Your task to perform on an android device: Open Google Chrome and open the bookmarks view Image 0: 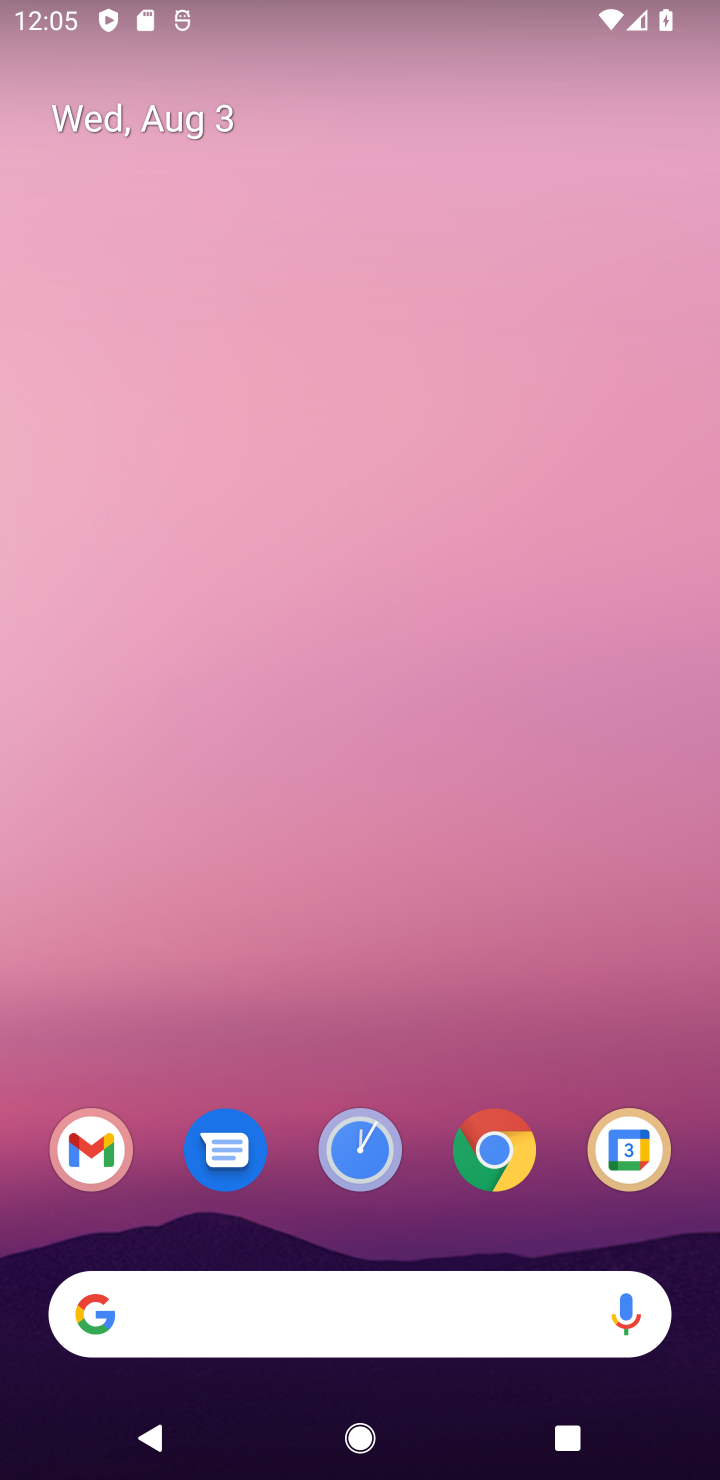
Step 0: press home button
Your task to perform on an android device: Open Google Chrome and open the bookmarks view Image 1: 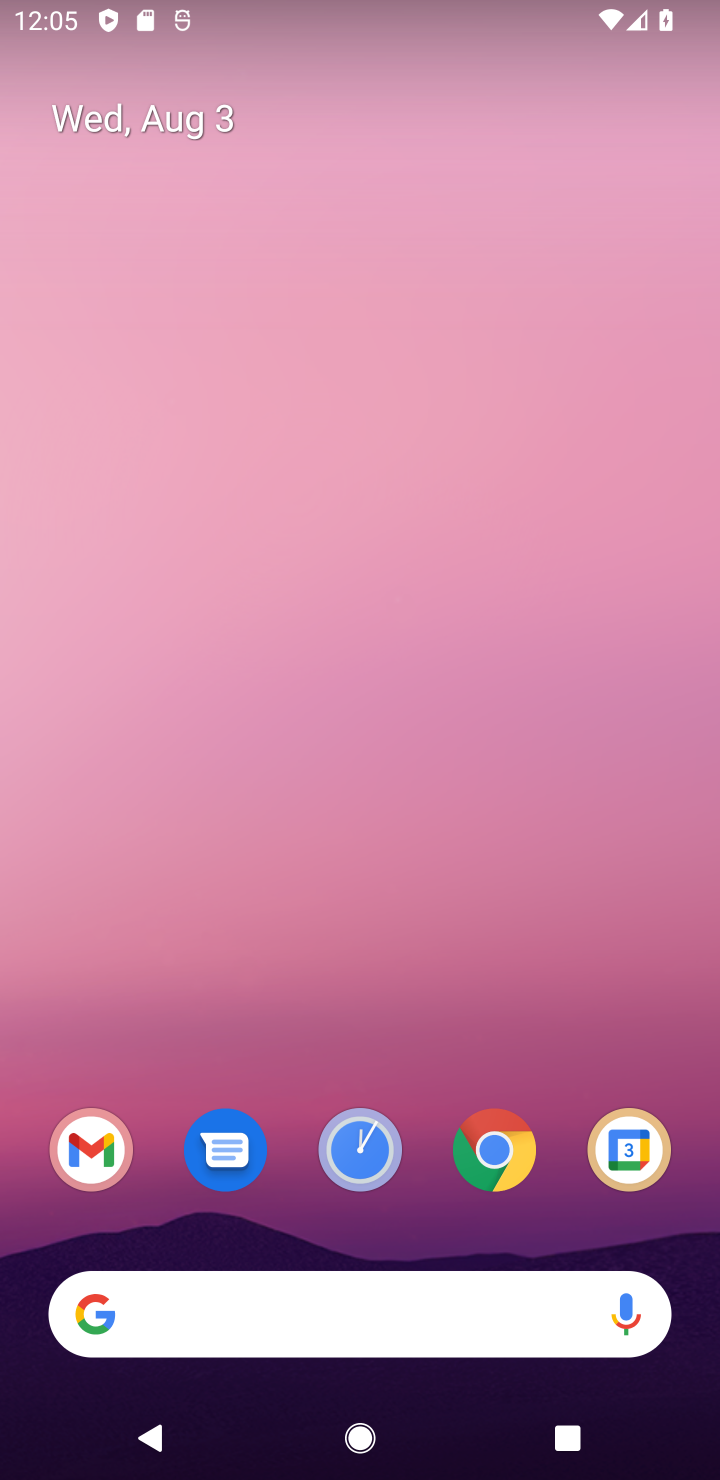
Step 1: drag from (487, 1013) to (523, 226)
Your task to perform on an android device: Open Google Chrome and open the bookmarks view Image 2: 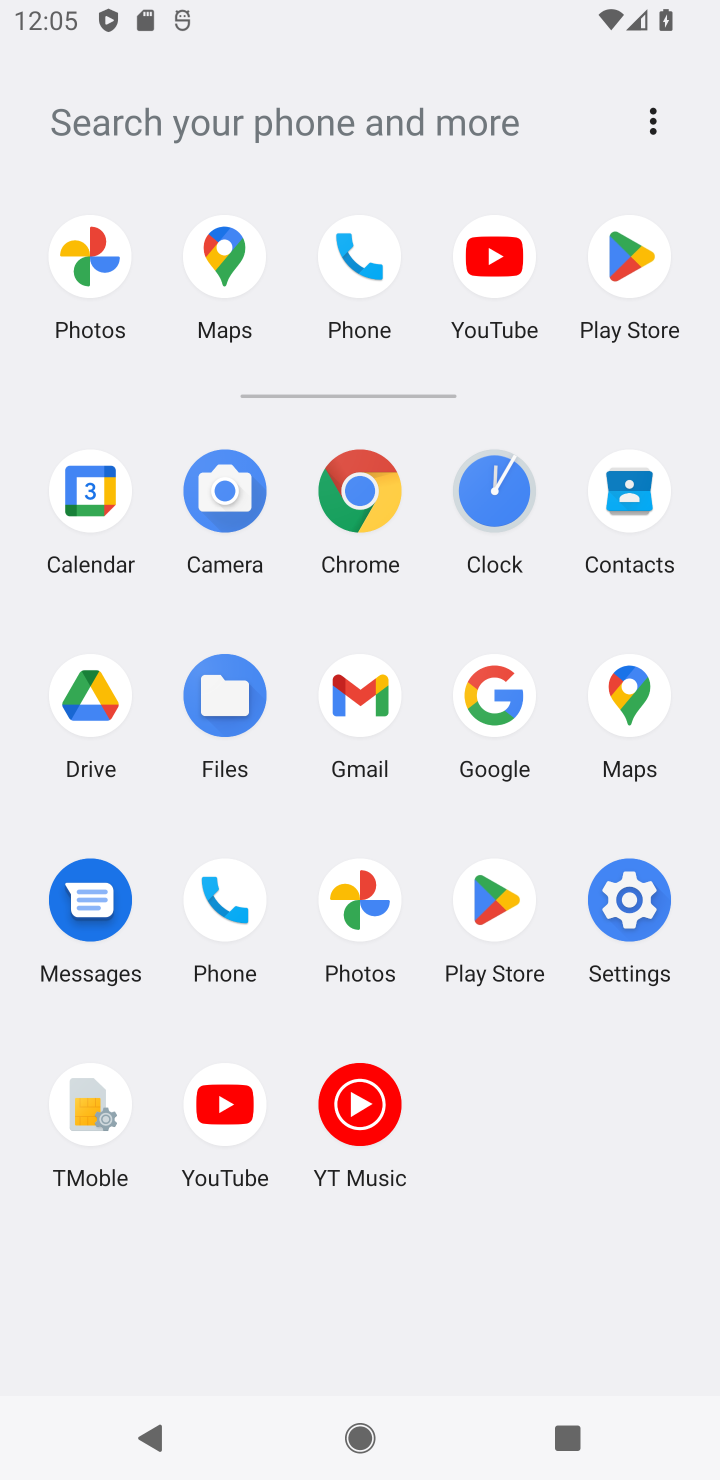
Step 2: click (351, 505)
Your task to perform on an android device: Open Google Chrome and open the bookmarks view Image 3: 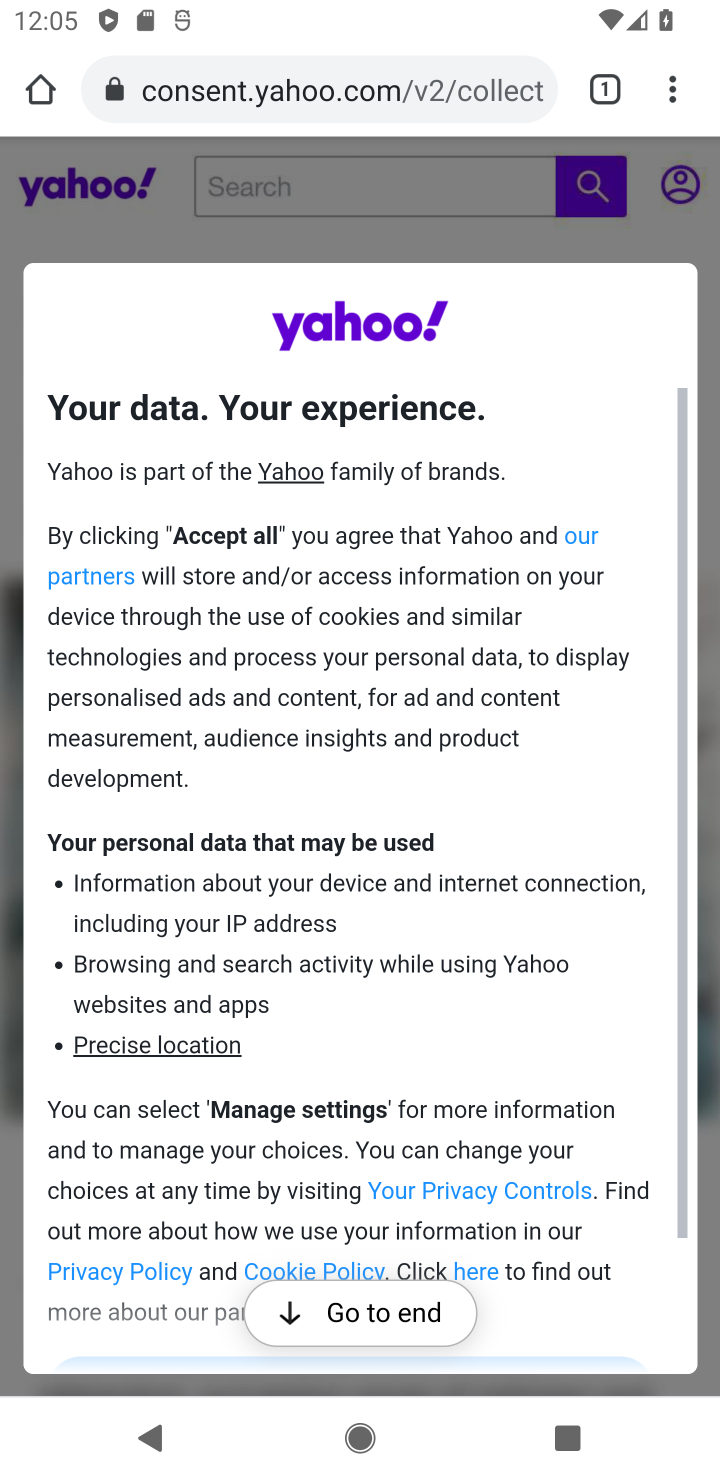
Step 3: click (671, 90)
Your task to perform on an android device: Open Google Chrome and open the bookmarks view Image 4: 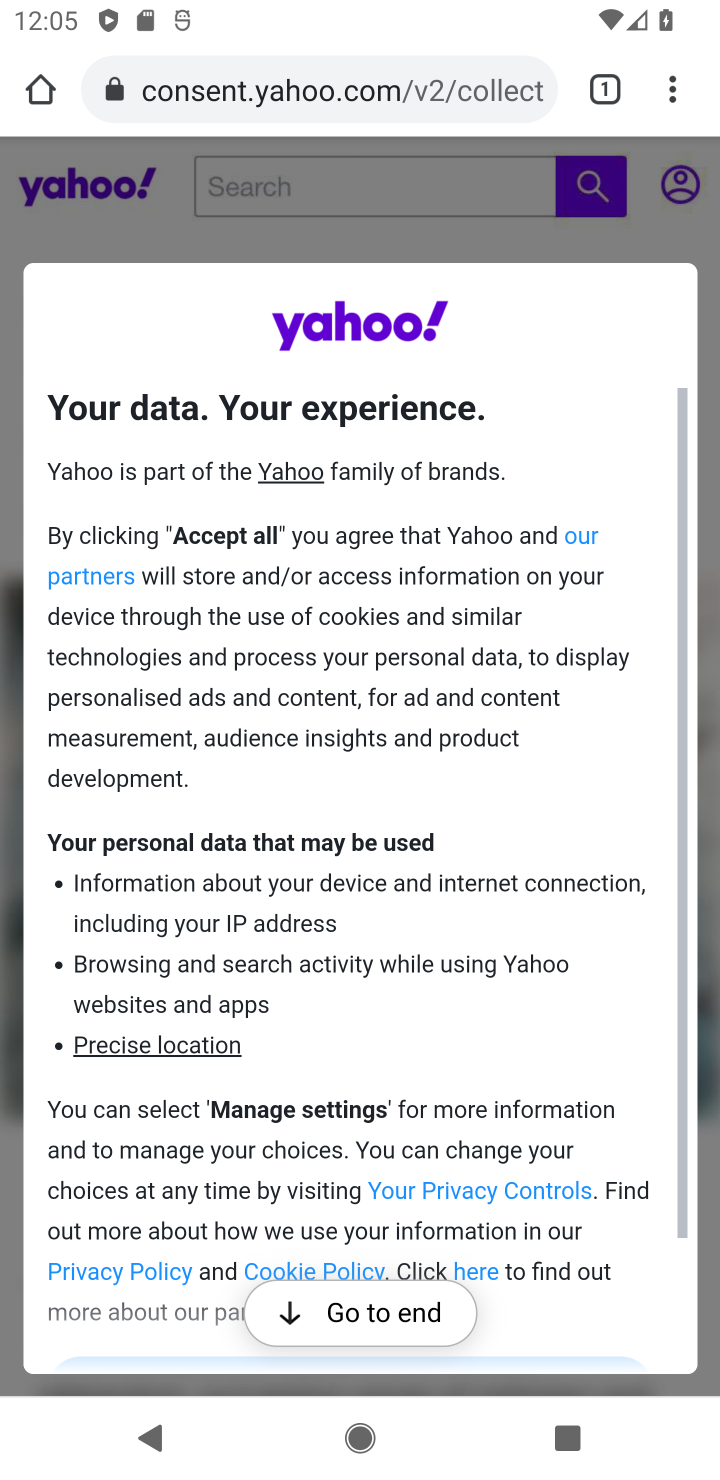
Step 4: click (674, 94)
Your task to perform on an android device: Open Google Chrome and open the bookmarks view Image 5: 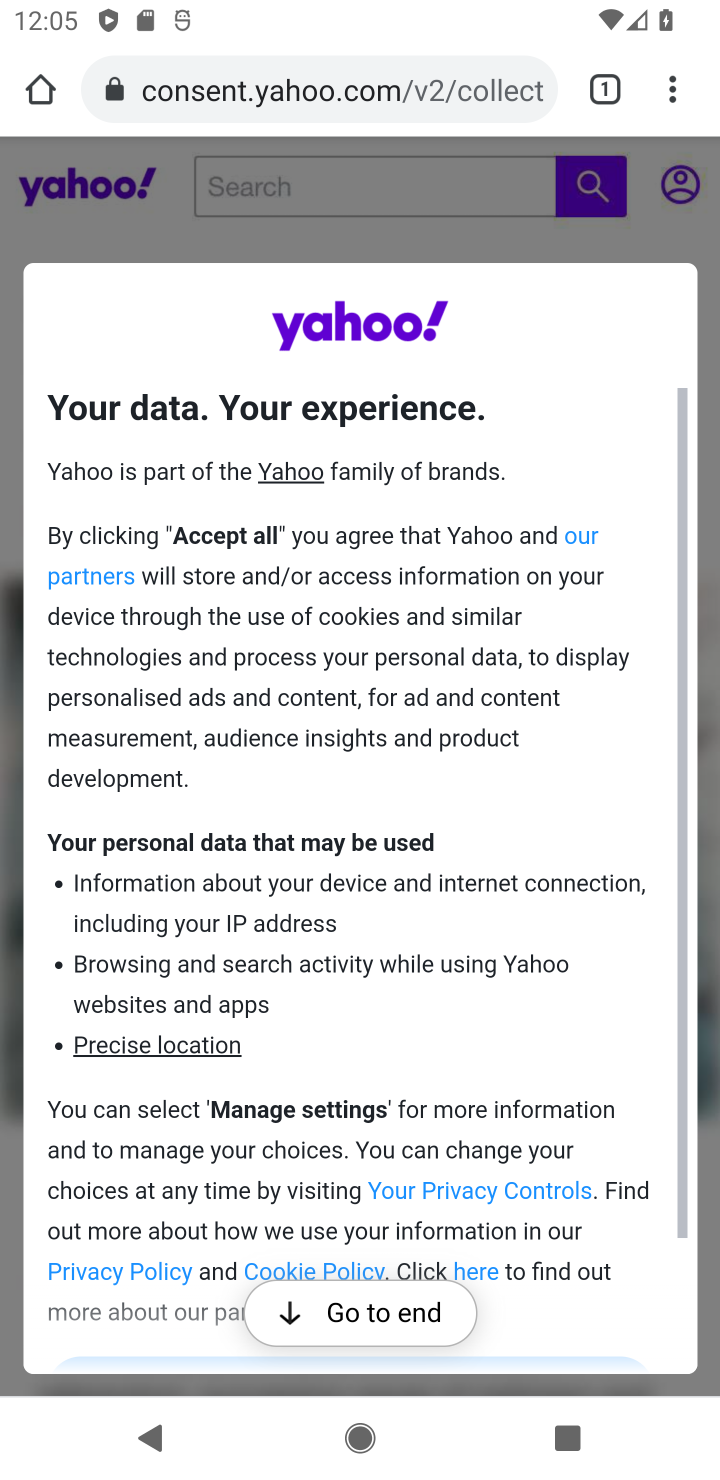
Step 5: click (674, 105)
Your task to perform on an android device: Open Google Chrome and open the bookmarks view Image 6: 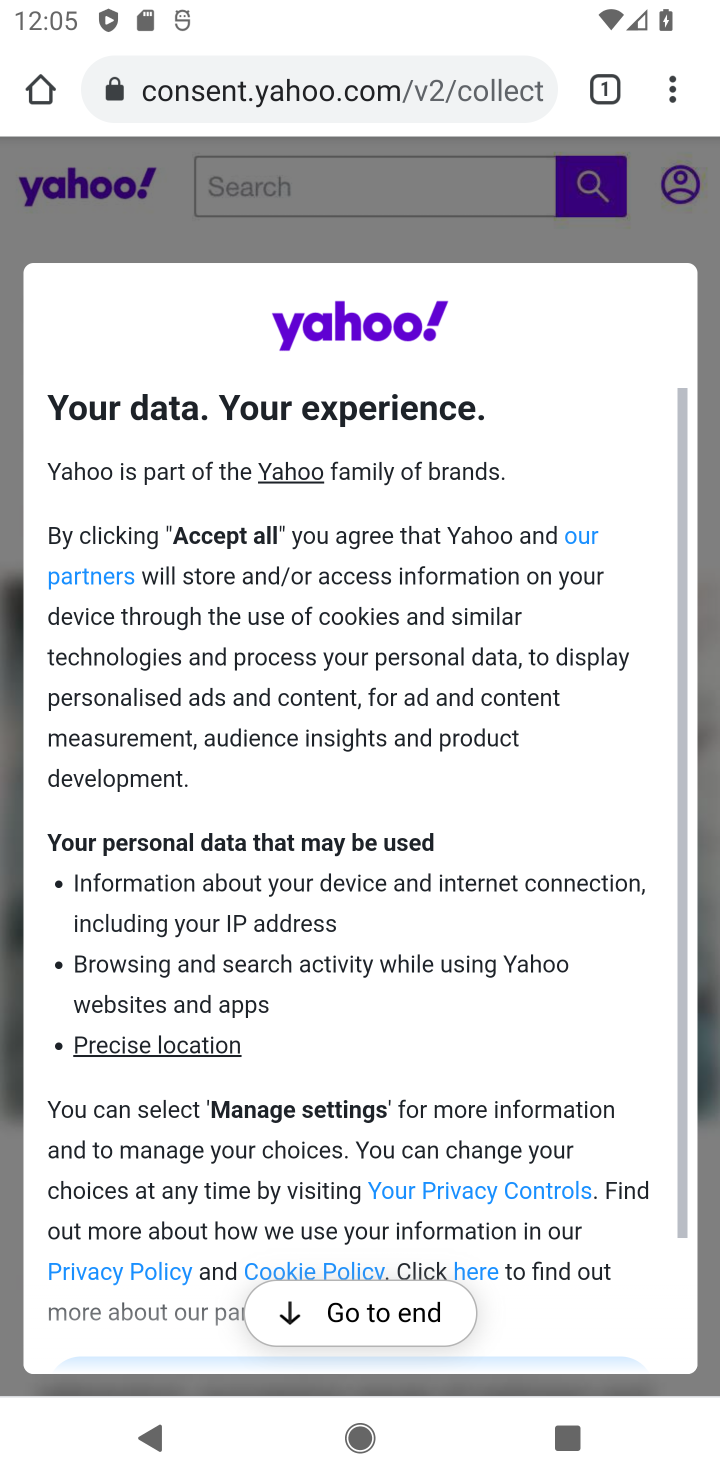
Step 6: click (668, 98)
Your task to perform on an android device: Open Google Chrome and open the bookmarks view Image 7: 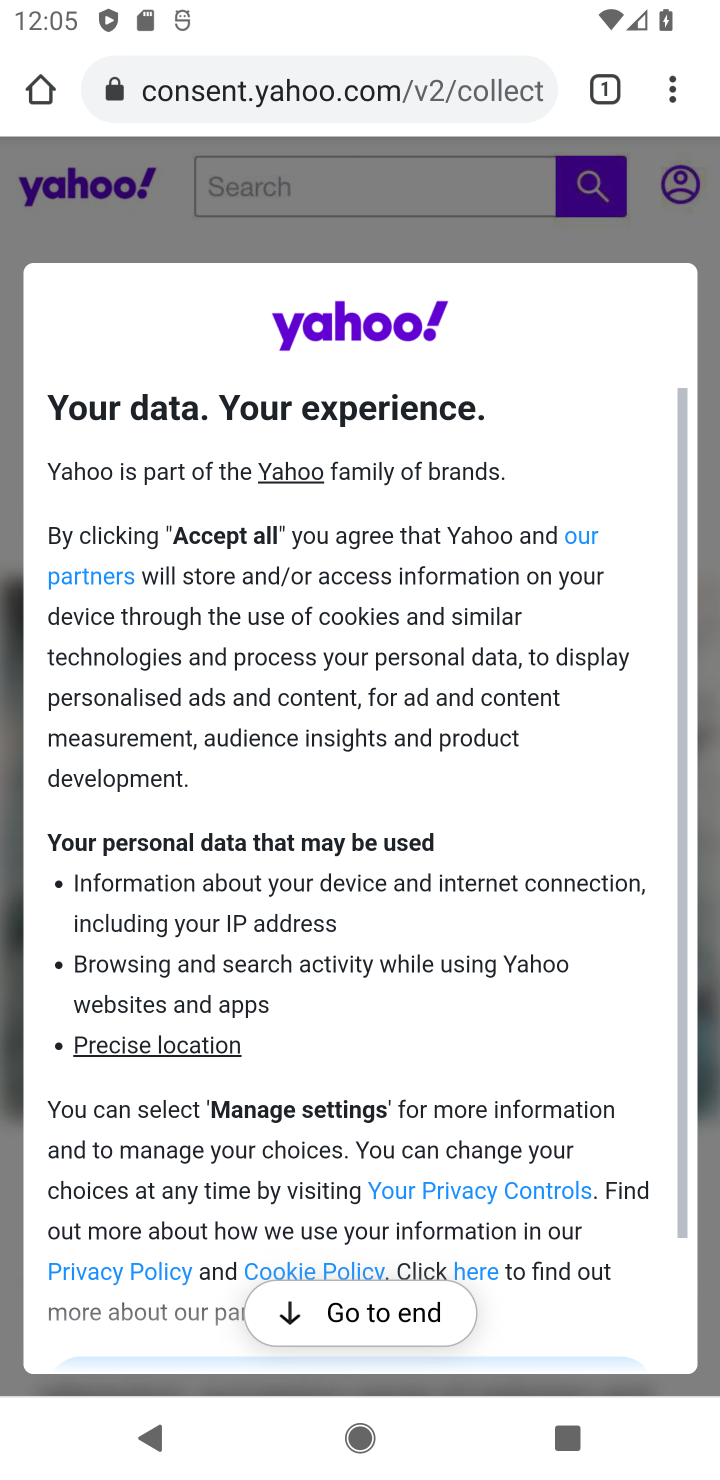
Step 7: click (676, 109)
Your task to perform on an android device: Open Google Chrome and open the bookmarks view Image 8: 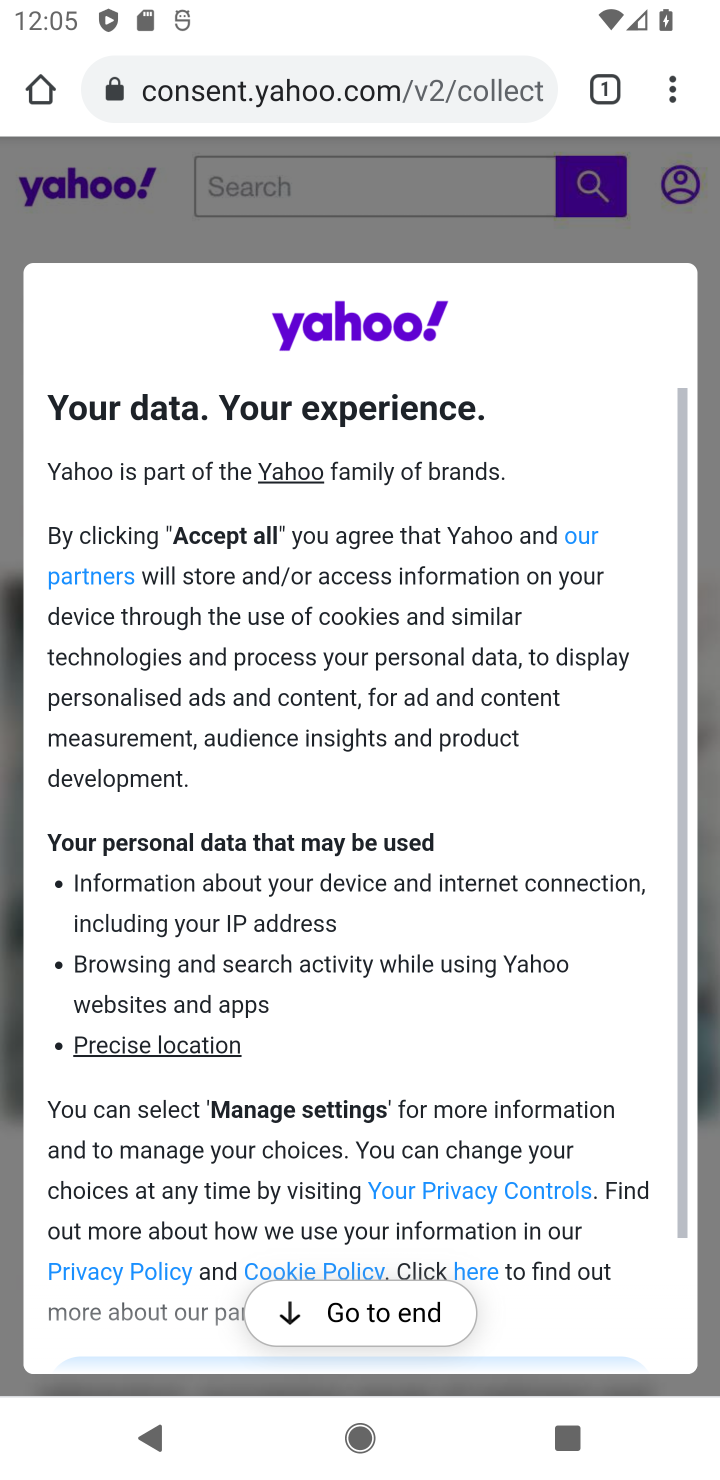
Step 8: click (676, 84)
Your task to perform on an android device: Open Google Chrome and open the bookmarks view Image 9: 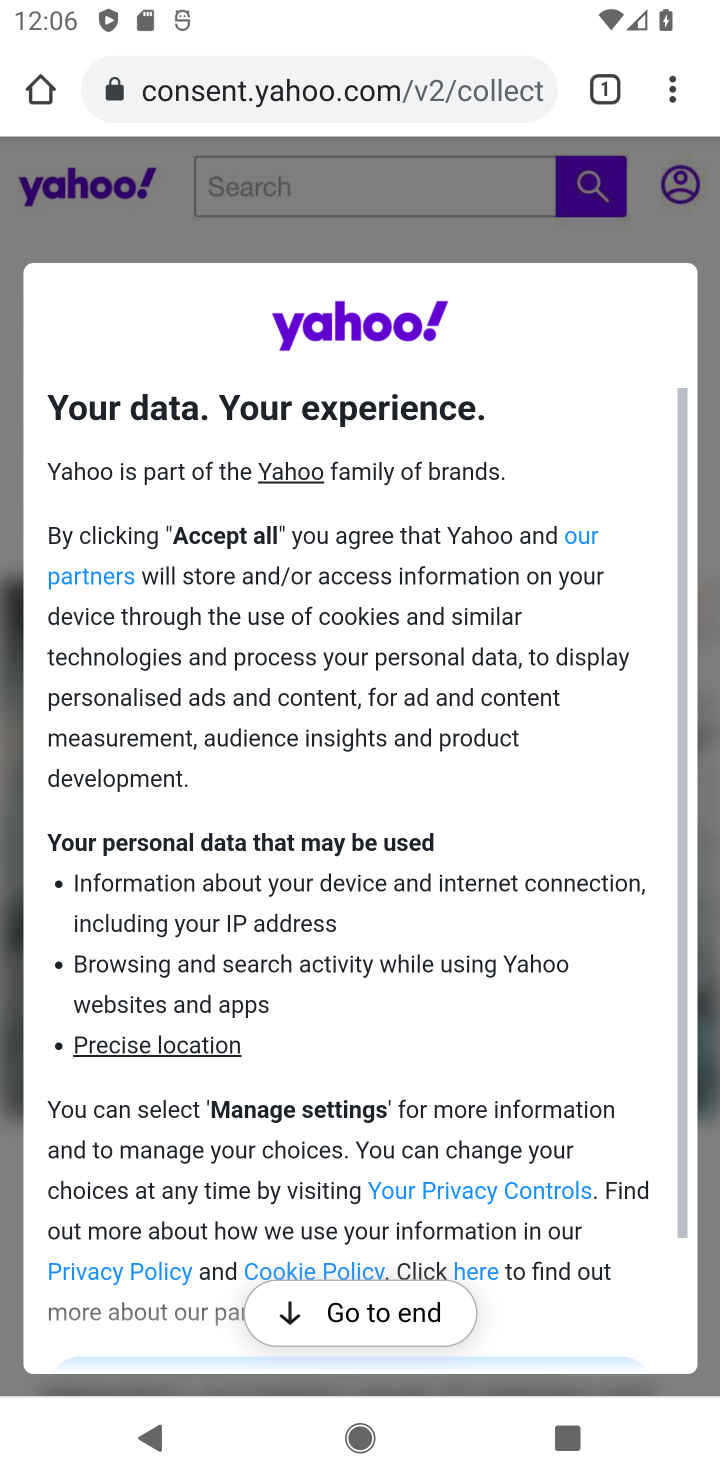
Step 9: task complete